Your task to perform on an android device: open a bookmark in the chrome app Image 0: 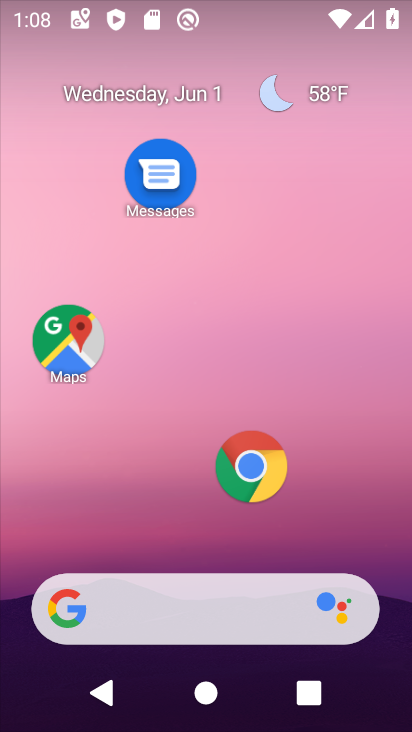
Step 0: click (245, 468)
Your task to perform on an android device: open a bookmark in the chrome app Image 1: 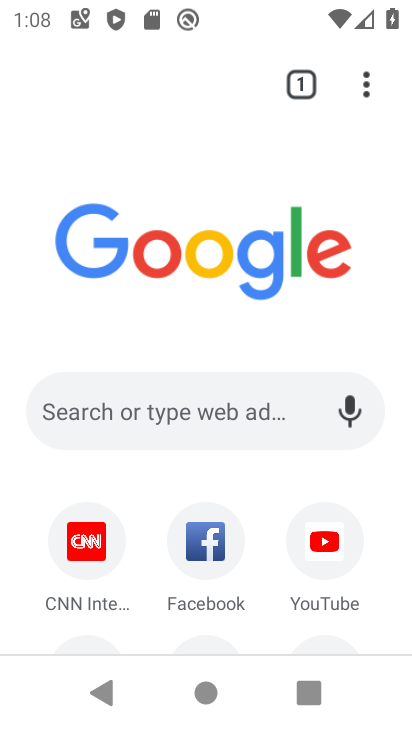
Step 1: click (365, 82)
Your task to perform on an android device: open a bookmark in the chrome app Image 2: 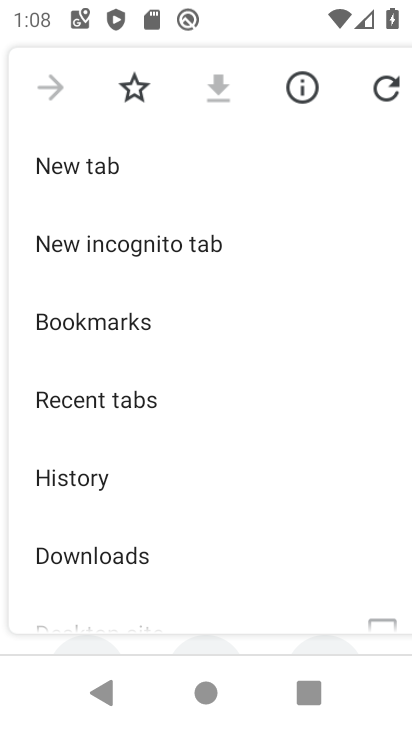
Step 2: click (159, 326)
Your task to perform on an android device: open a bookmark in the chrome app Image 3: 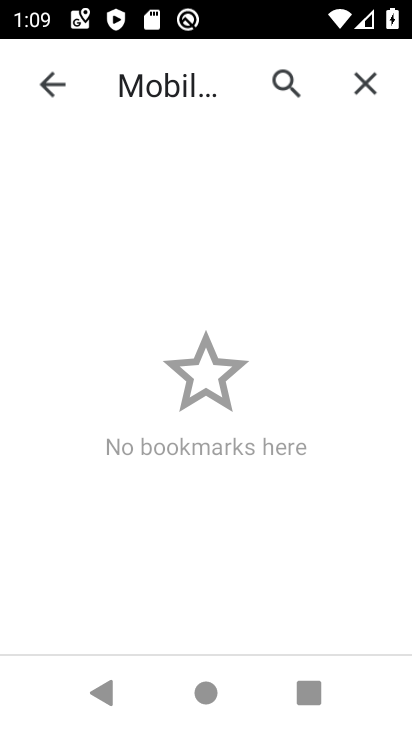
Step 3: task complete